Your task to perform on an android device: turn notification dots off Image 0: 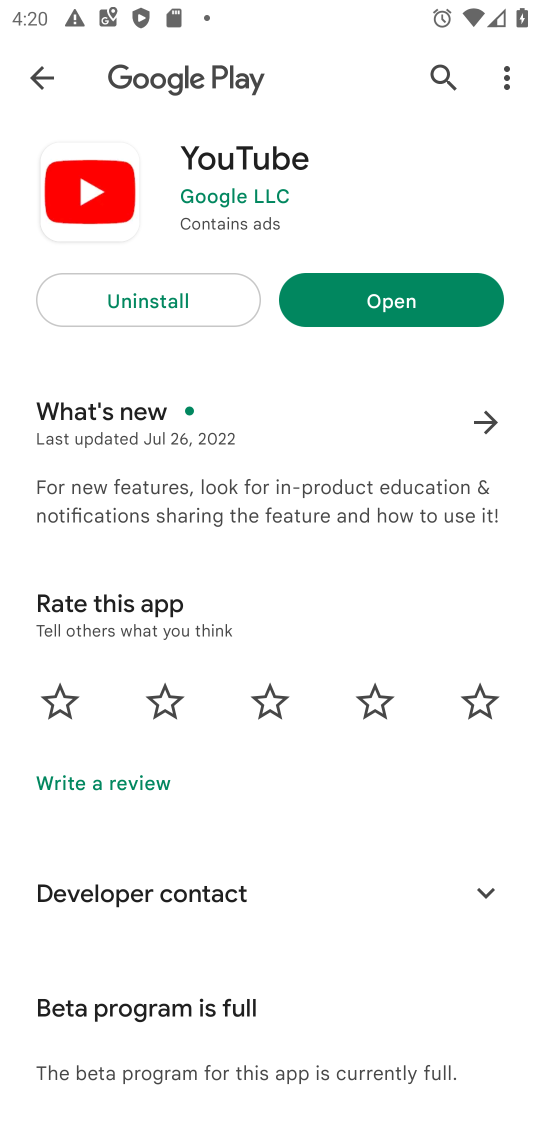
Step 0: press home button
Your task to perform on an android device: turn notification dots off Image 1: 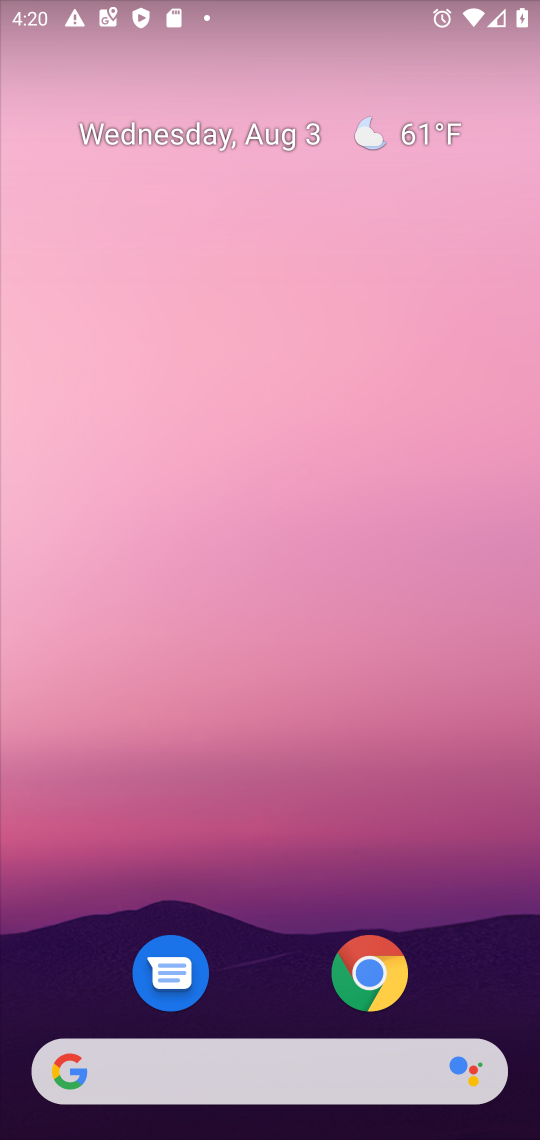
Step 1: drag from (300, 910) to (341, 1)
Your task to perform on an android device: turn notification dots off Image 2: 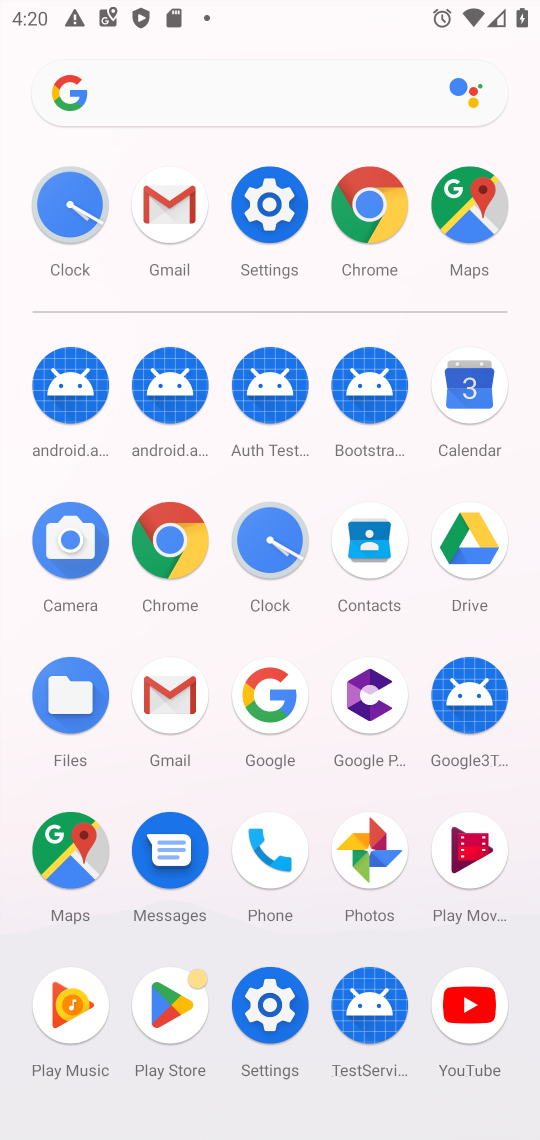
Step 2: click (271, 214)
Your task to perform on an android device: turn notification dots off Image 3: 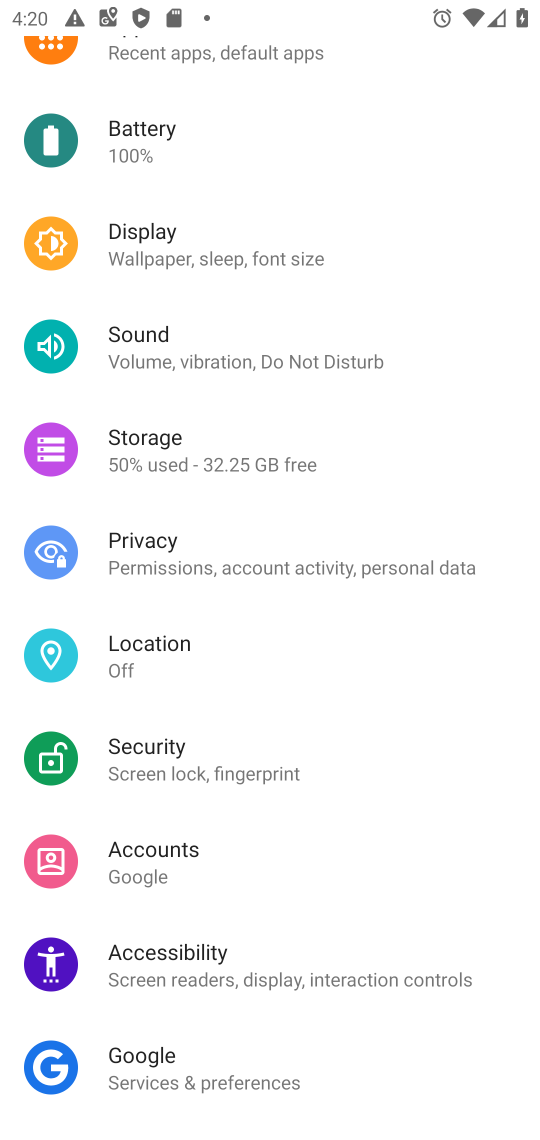
Step 3: drag from (285, 223) to (290, 733)
Your task to perform on an android device: turn notification dots off Image 4: 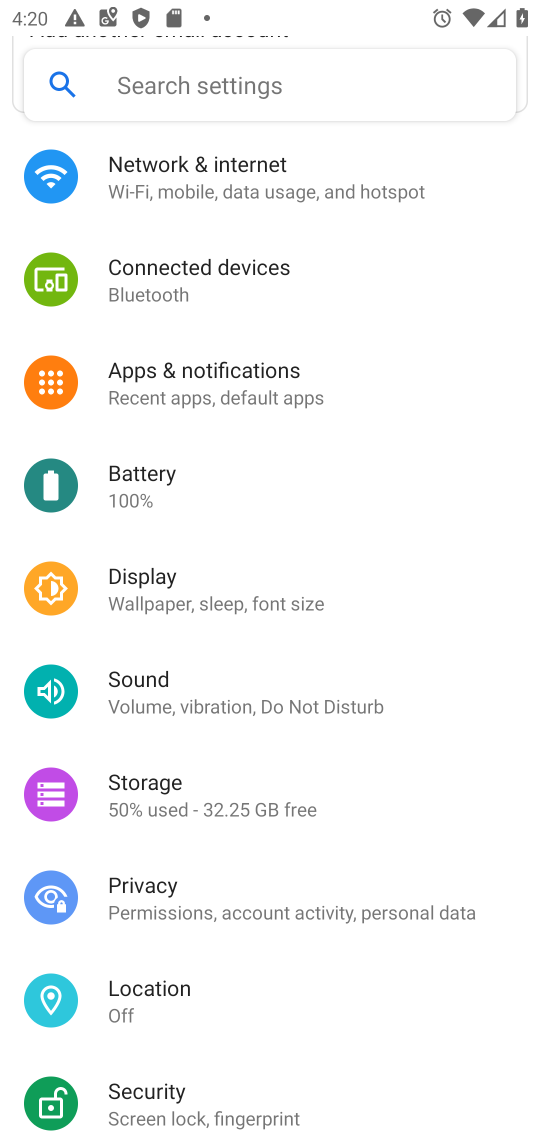
Step 4: click (316, 398)
Your task to perform on an android device: turn notification dots off Image 5: 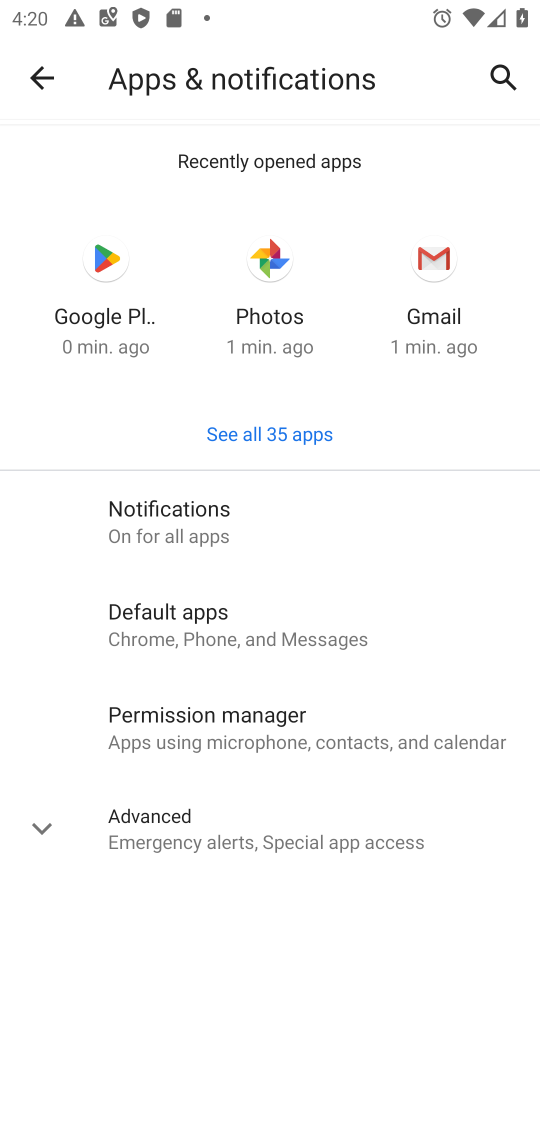
Step 5: click (197, 513)
Your task to perform on an android device: turn notification dots off Image 6: 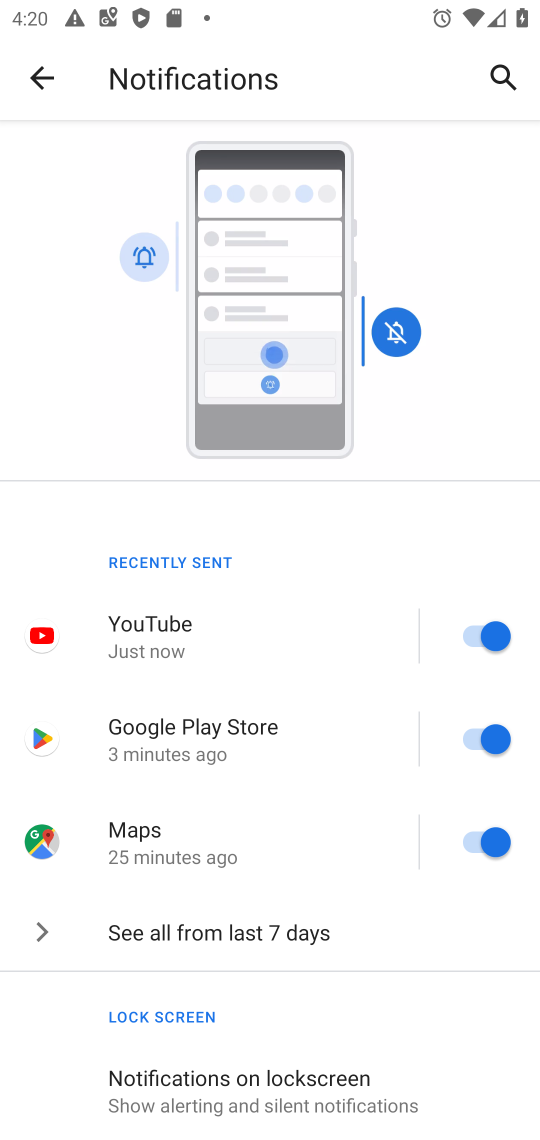
Step 6: drag from (289, 818) to (316, 132)
Your task to perform on an android device: turn notification dots off Image 7: 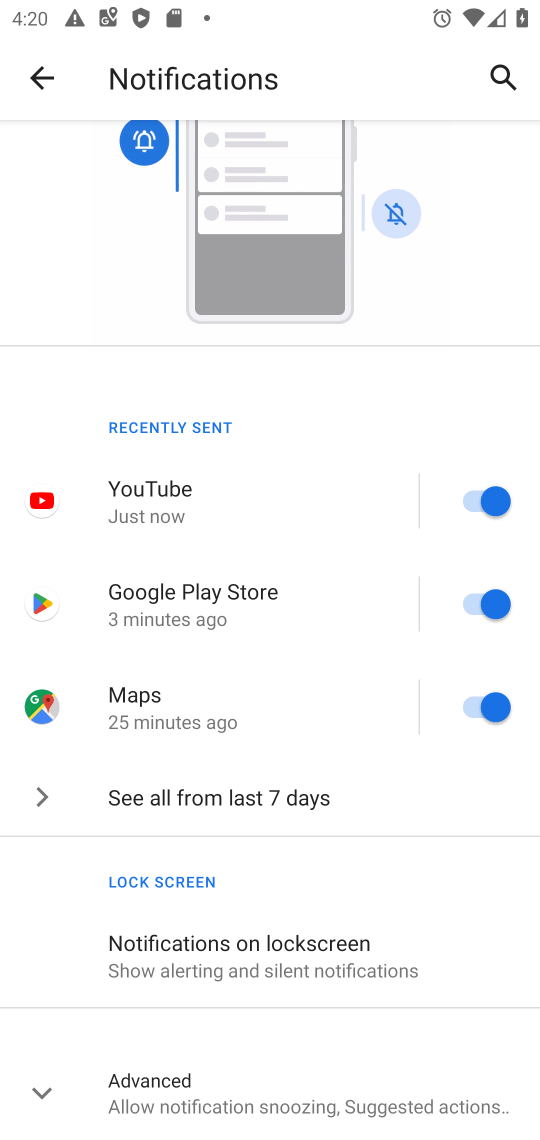
Step 7: click (38, 1082)
Your task to perform on an android device: turn notification dots off Image 8: 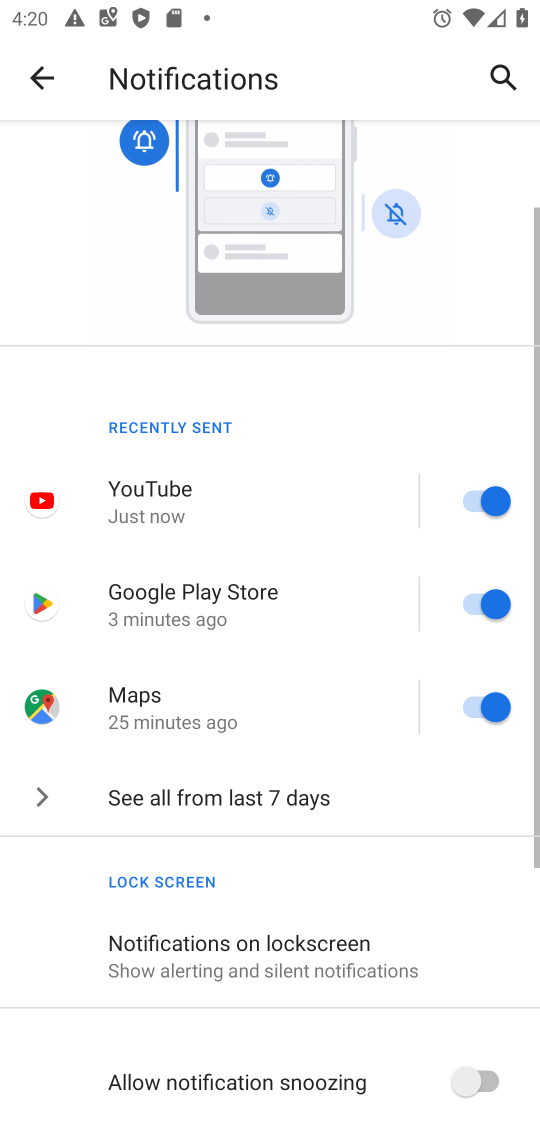
Step 8: drag from (316, 864) to (399, 284)
Your task to perform on an android device: turn notification dots off Image 9: 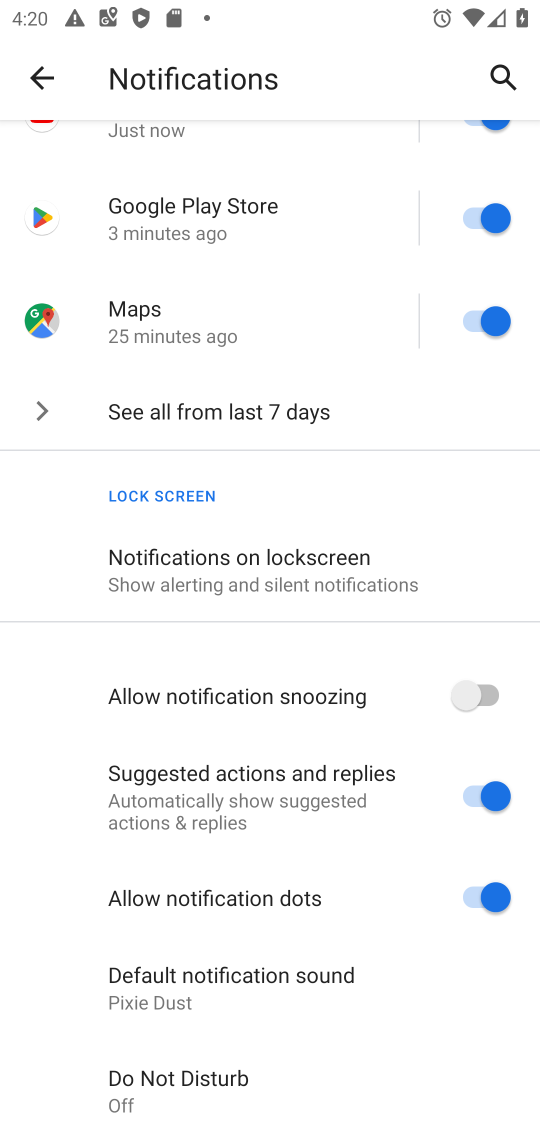
Step 9: click (475, 880)
Your task to perform on an android device: turn notification dots off Image 10: 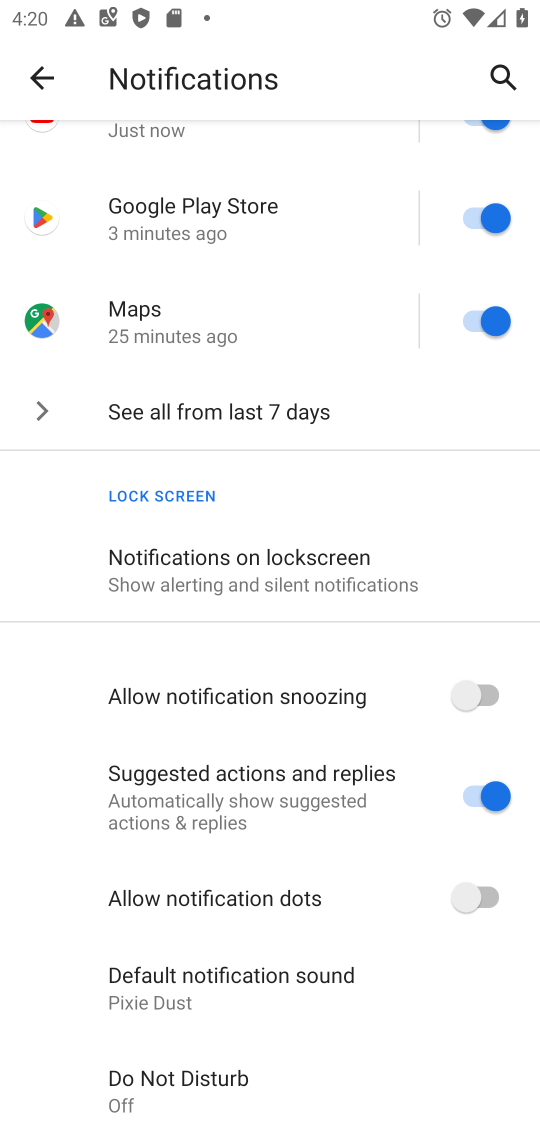
Step 10: task complete